Your task to perform on an android device: Is it going to rain this weekend? Image 0: 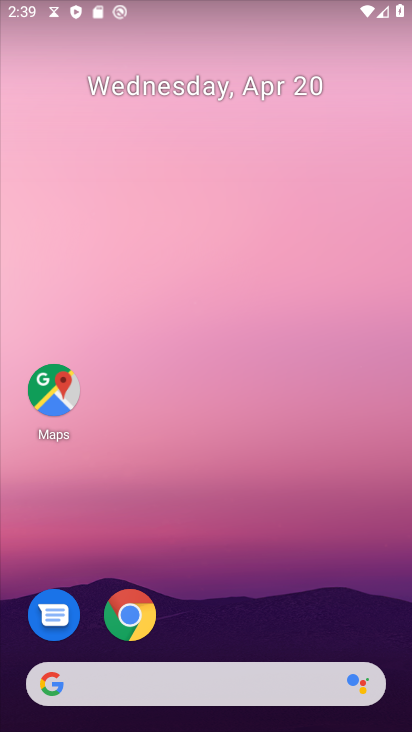
Step 0: drag from (208, 621) to (252, 78)
Your task to perform on an android device: Is it going to rain this weekend? Image 1: 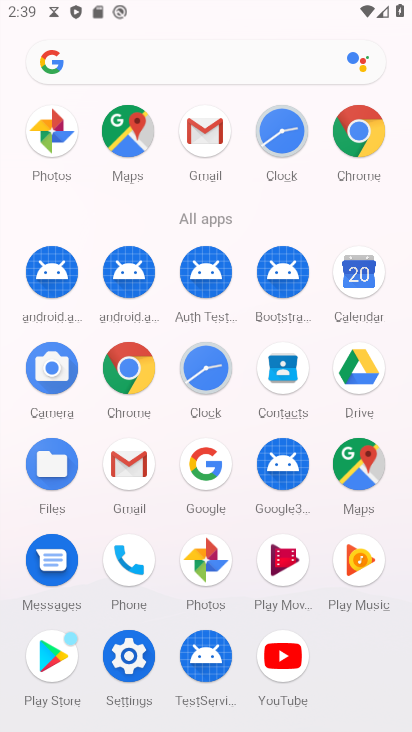
Step 1: click (128, 648)
Your task to perform on an android device: Is it going to rain this weekend? Image 2: 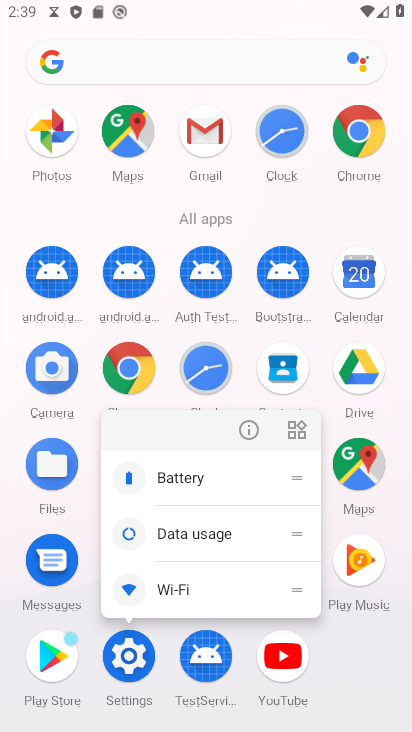
Step 2: click (139, 372)
Your task to perform on an android device: Is it going to rain this weekend? Image 3: 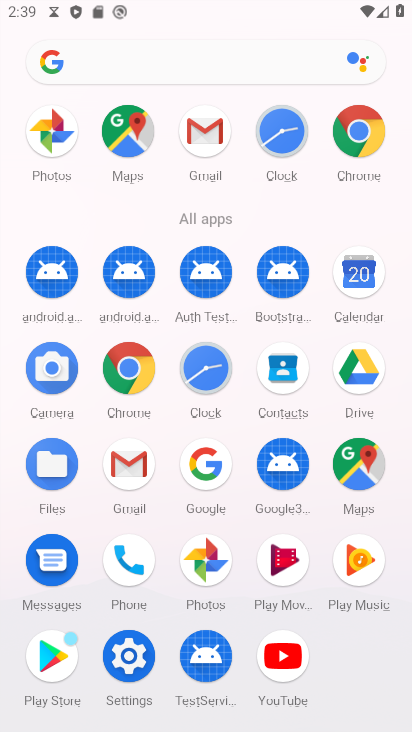
Step 3: drag from (196, 587) to (239, 212)
Your task to perform on an android device: Is it going to rain this weekend? Image 4: 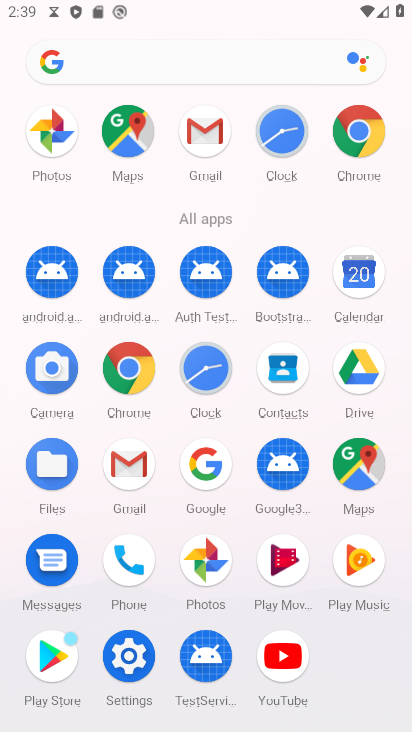
Step 4: click (126, 351)
Your task to perform on an android device: Is it going to rain this weekend? Image 5: 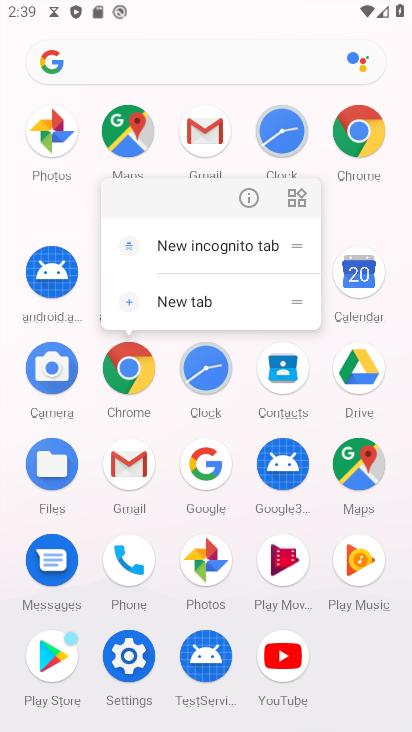
Step 5: click (247, 208)
Your task to perform on an android device: Is it going to rain this weekend? Image 6: 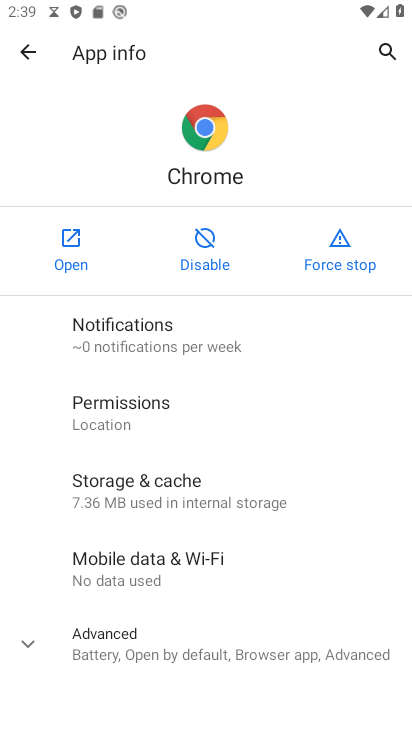
Step 6: click (84, 243)
Your task to perform on an android device: Is it going to rain this weekend? Image 7: 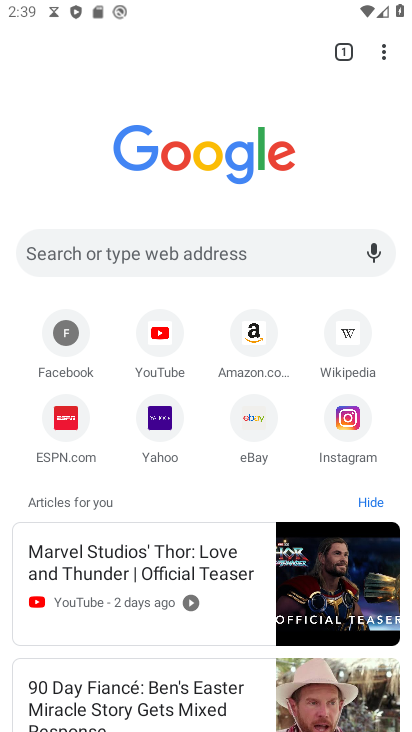
Step 7: click (170, 262)
Your task to perform on an android device: Is it going to rain this weekend? Image 8: 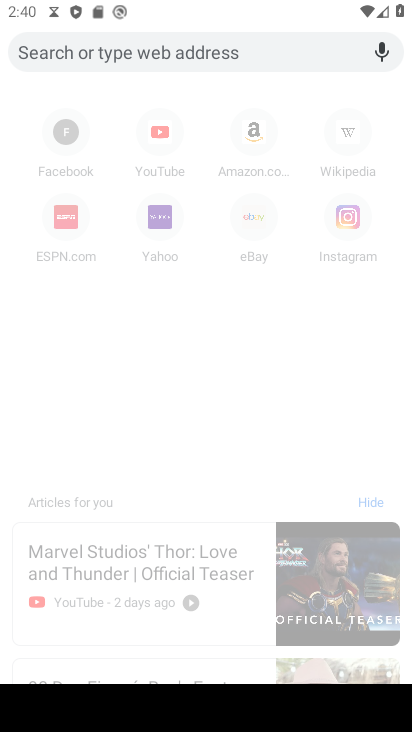
Step 8: type "rain this weekend"
Your task to perform on an android device: Is it going to rain this weekend? Image 9: 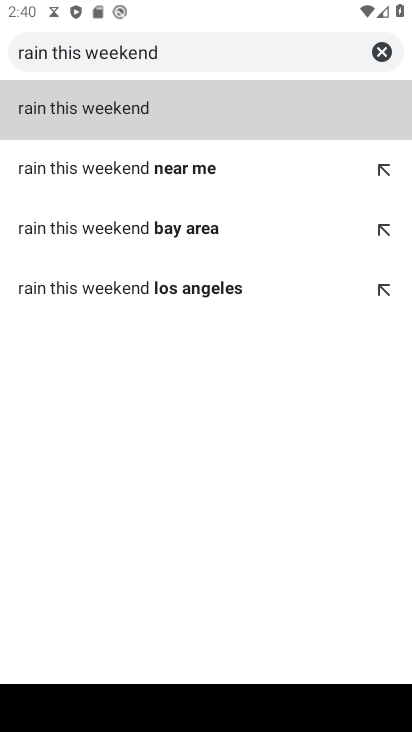
Step 9: click (160, 126)
Your task to perform on an android device: Is it going to rain this weekend? Image 10: 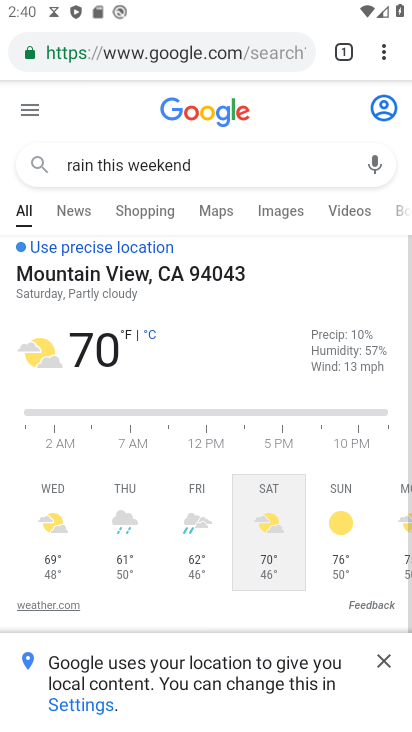
Step 10: task complete